Your task to perform on an android device: open a bookmark in the chrome app Image 0: 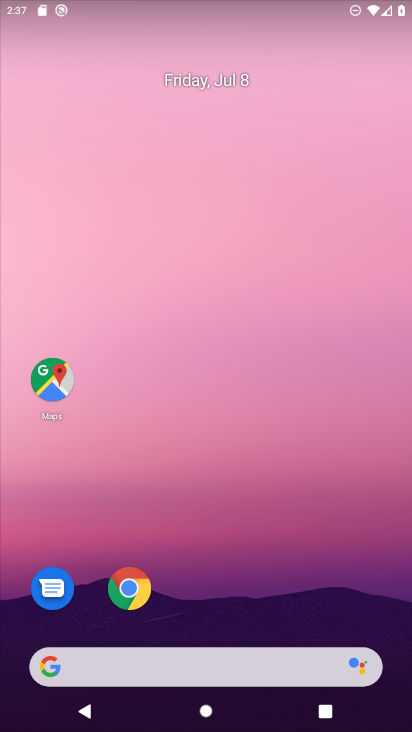
Step 0: click (190, 57)
Your task to perform on an android device: open a bookmark in the chrome app Image 1: 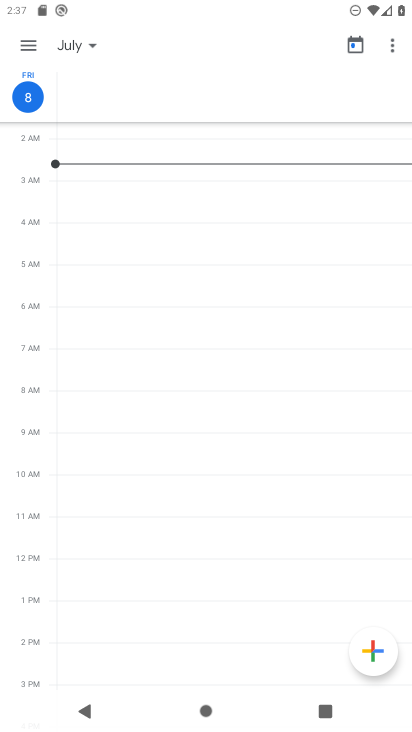
Step 1: press home button
Your task to perform on an android device: open a bookmark in the chrome app Image 2: 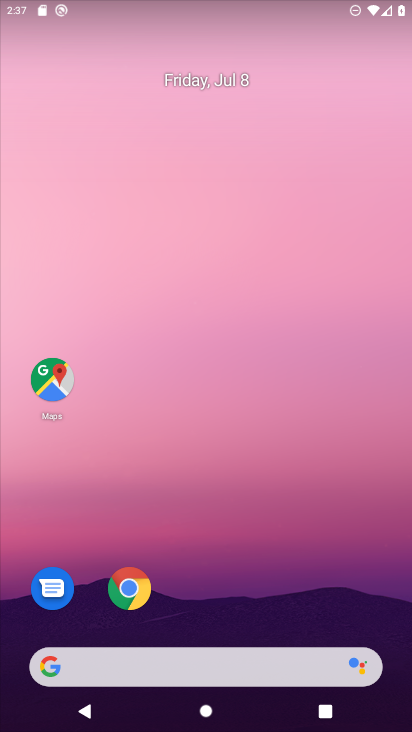
Step 2: click (138, 586)
Your task to perform on an android device: open a bookmark in the chrome app Image 3: 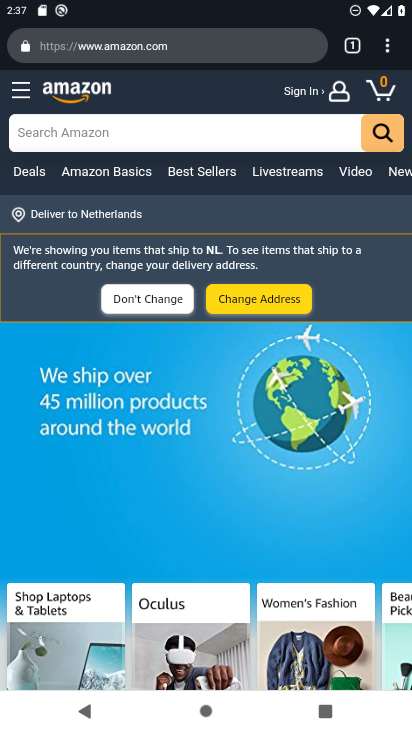
Step 3: click (386, 46)
Your task to perform on an android device: open a bookmark in the chrome app Image 4: 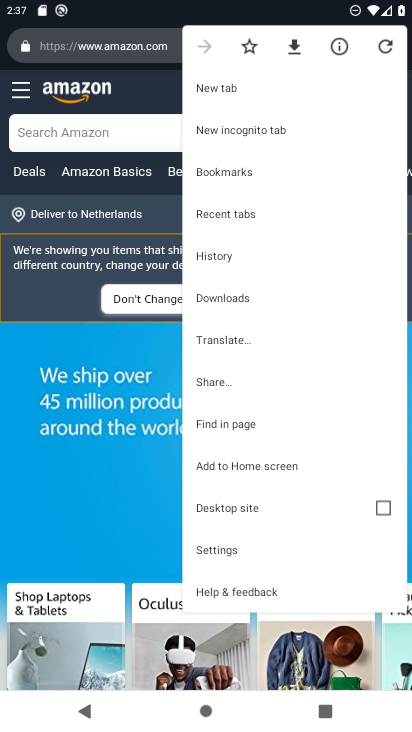
Step 4: click (213, 549)
Your task to perform on an android device: open a bookmark in the chrome app Image 5: 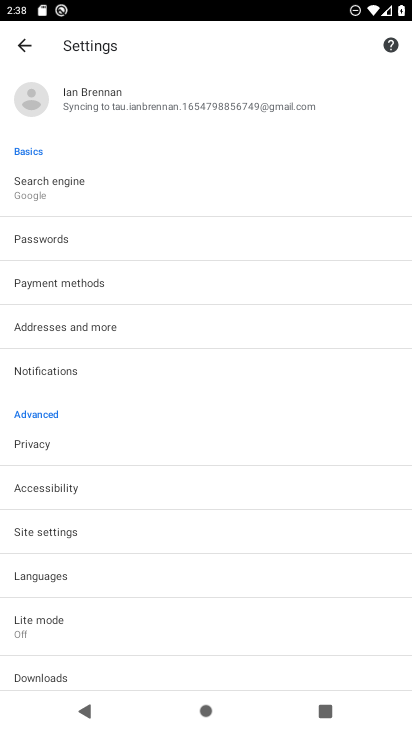
Step 5: click (24, 49)
Your task to perform on an android device: open a bookmark in the chrome app Image 6: 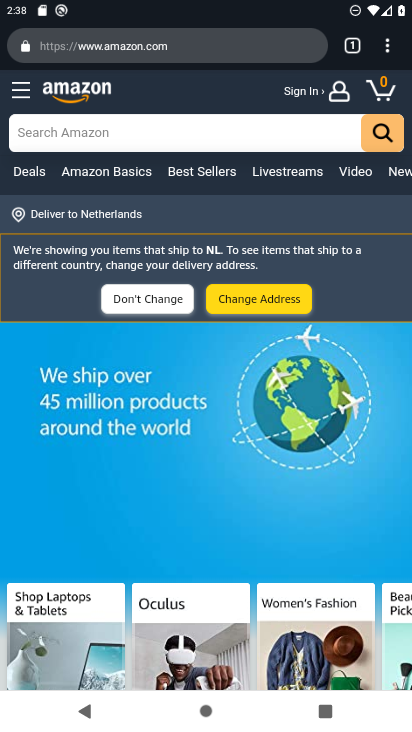
Step 6: click (385, 48)
Your task to perform on an android device: open a bookmark in the chrome app Image 7: 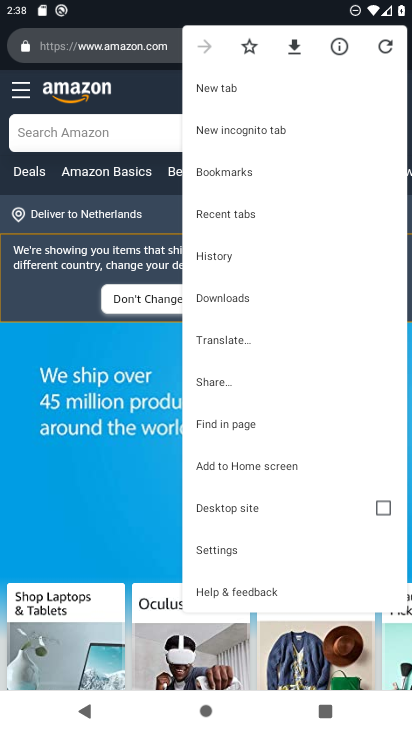
Step 7: click (225, 174)
Your task to perform on an android device: open a bookmark in the chrome app Image 8: 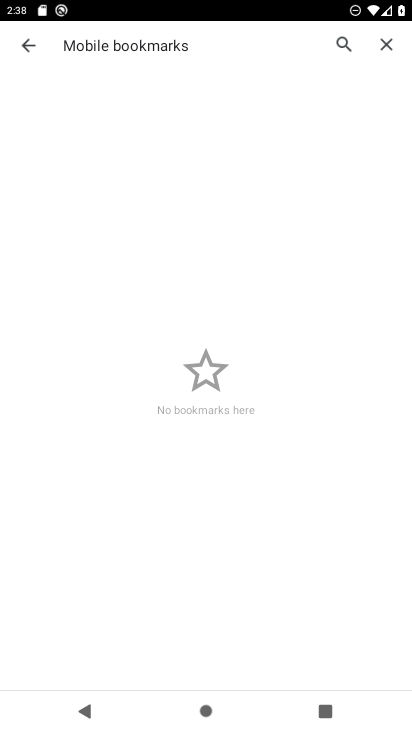
Step 8: task complete